Your task to perform on an android device: Open Google Chrome and open the bookmarks view Image 0: 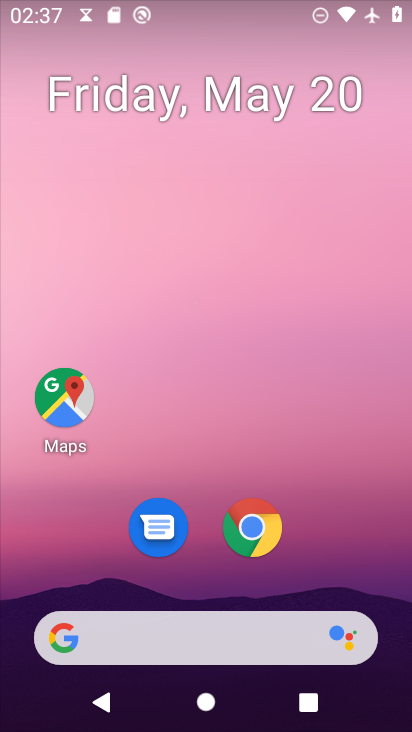
Step 0: press home button
Your task to perform on an android device: Open Google Chrome and open the bookmarks view Image 1: 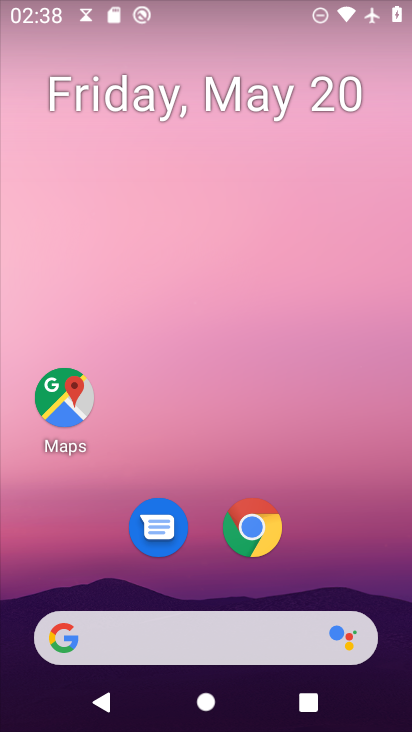
Step 1: click (250, 546)
Your task to perform on an android device: Open Google Chrome and open the bookmarks view Image 2: 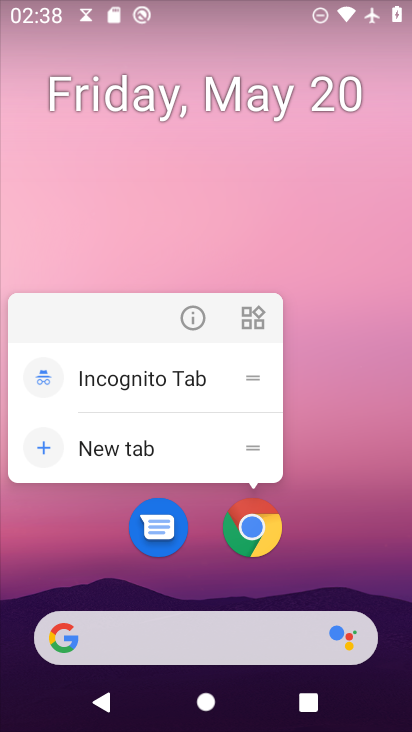
Step 2: click (256, 537)
Your task to perform on an android device: Open Google Chrome and open the bookmarks view Image 3: 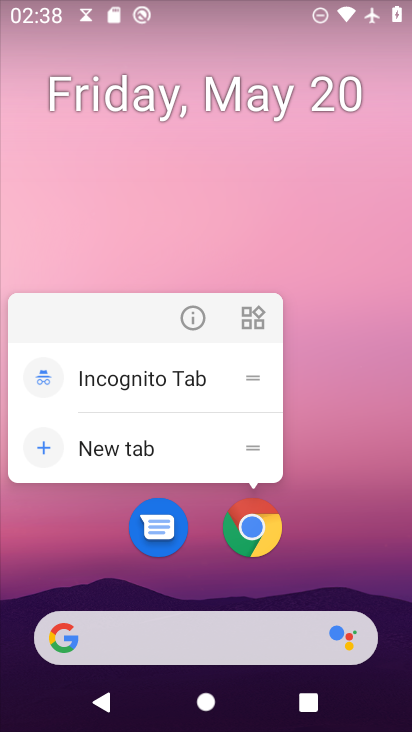
Step 3: click (251, 529)
Your task to perform on an android device: Open Google Chrome and open the bookmarks view Image 4: 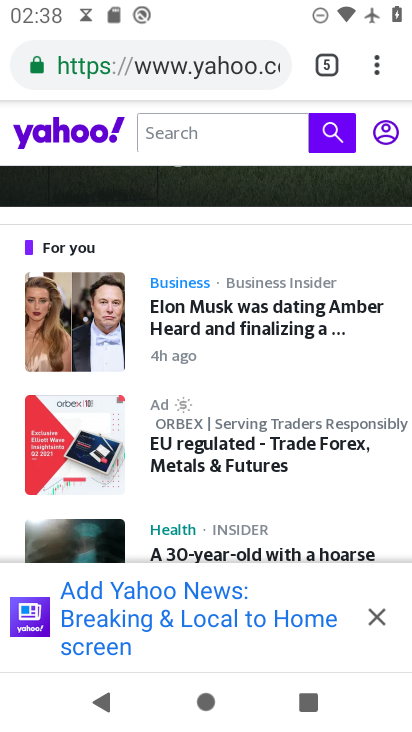
Step 4: task complete